Your task to perform on an android device: turn off notifications in google photos Image 0: 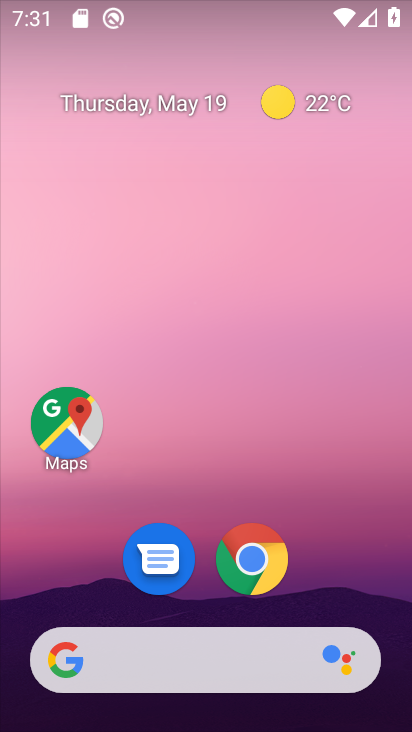
Step 0: drag from (209, 583) to (346, 0)
Your task to perform on an android device: turn off notifications in google photos Image 1: 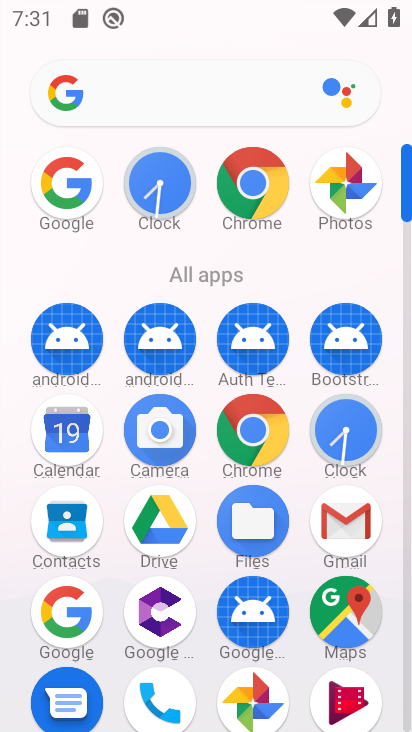
Step 1: click (344, 194)
Your task to perform on an android device: turn off notifications in google photos Image 2: 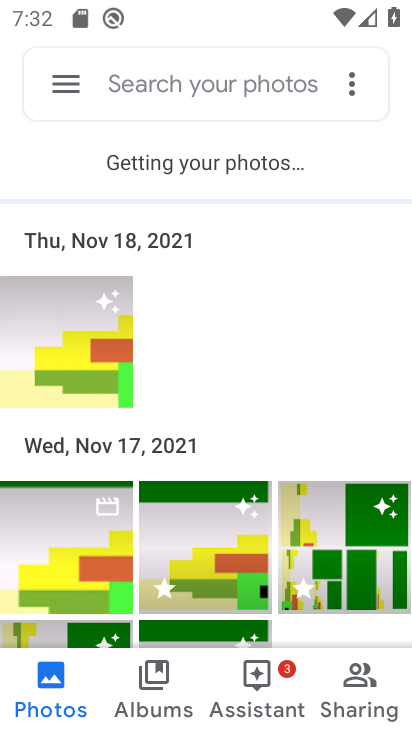
Step 2: click (57, 84)
Your task to perform on an android device: turn off notifications in google photos Image 3: 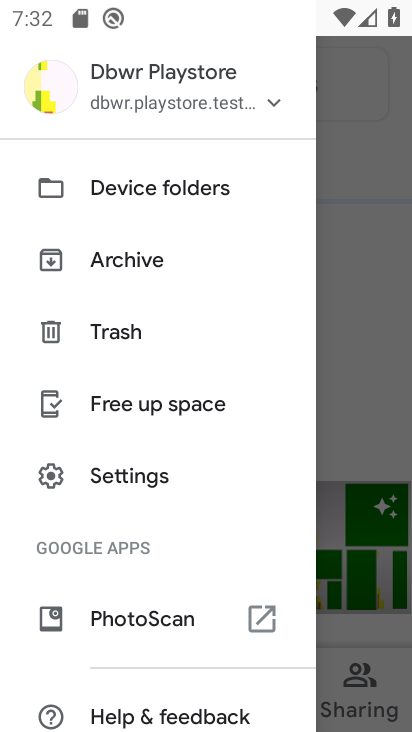
Step 3: click (175, 466)
Your task to perform on an android device: turn off notifications in google photos Image 4: 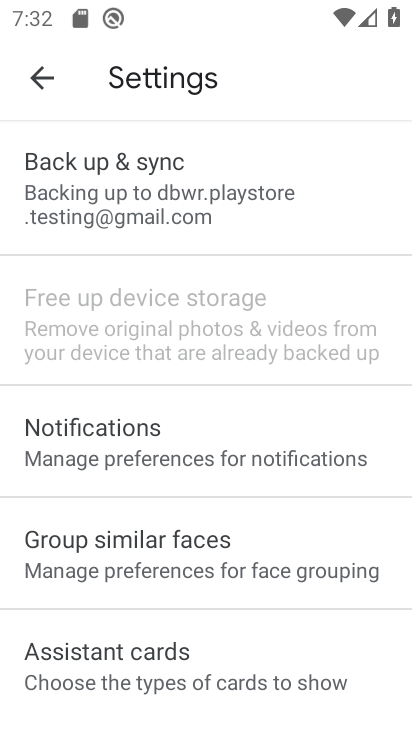
Step 4: click (213, 455)
Your task to perform on an android device: turn off notifications in google photos Image 5: 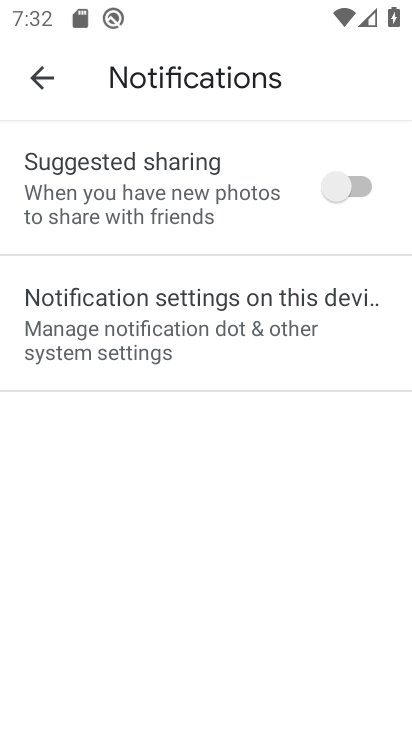
Step 5: click (231, 361)
Your task to perform on an android device: turn off notifications in google photos Image 6: 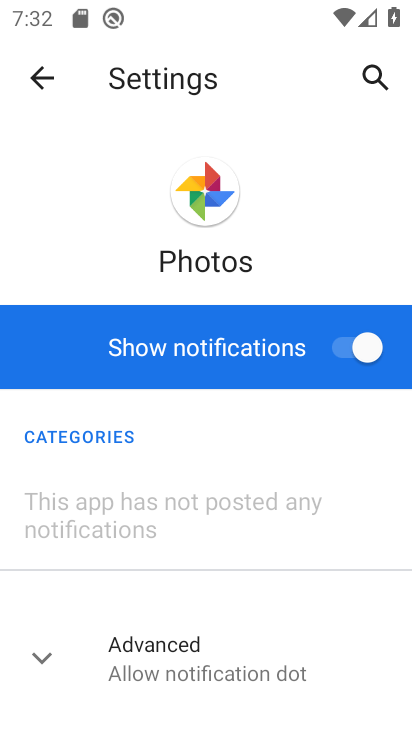
Step 6: click (342, 366)
Your task to perform on an android device: turn off notifications in google photos Image 7: 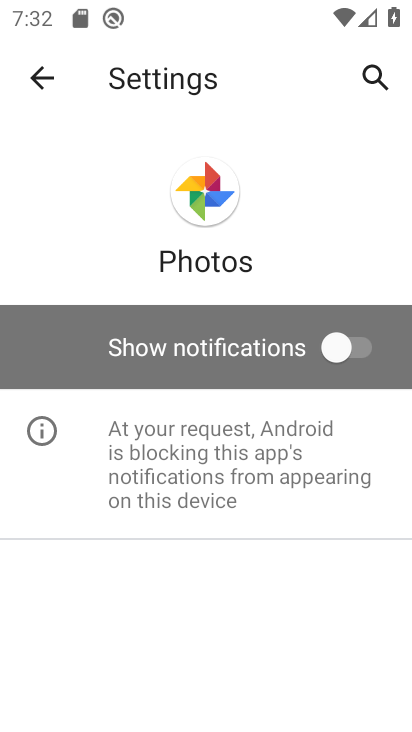
Step 7: task complete